Your task to perform on an android device: Search for "macbook pro" on target, select the first entry, and add it to the cart. Image 0: 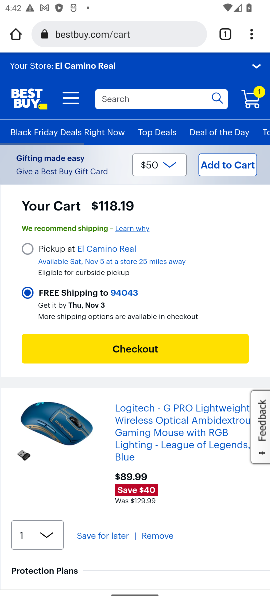
Step 0: click (141, 27)
Your task to perform on an android device: Search for "macbook pro" on target, select the first entry, and add it to the cart. Image 1: 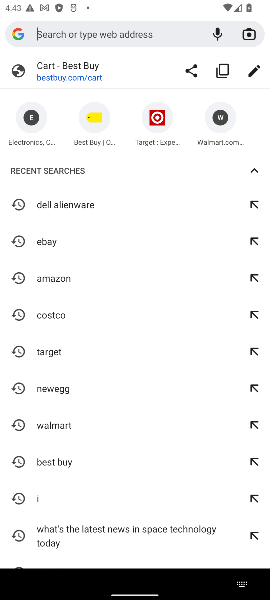
Step 1: type "target"
Your task to perform on an android device: Search for "macbook pro" on target, select the first entry, and add it to the cart. Image 2: 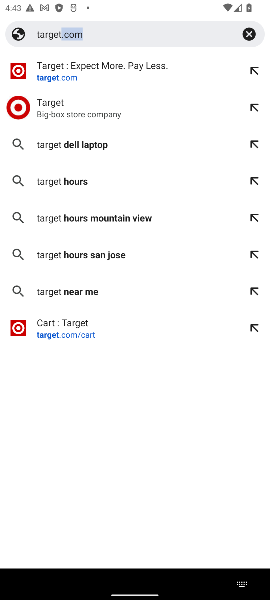
Step 2: click (85, 86)
Your task to perform on an android device: Search for "macbook pro" on target, select the first entry, and add it to the cart. Image 3: 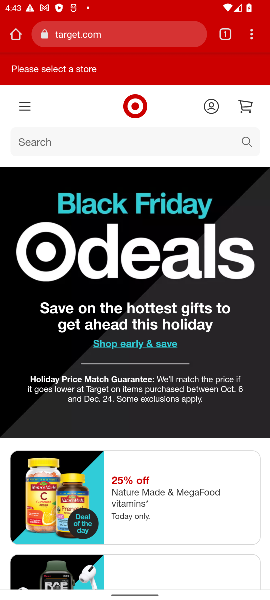
Step 3: click (115, 141)
Your task to perform on an android device: Search for "macbook pro" on target, select the first entry, and add it to the cart. Image 4: 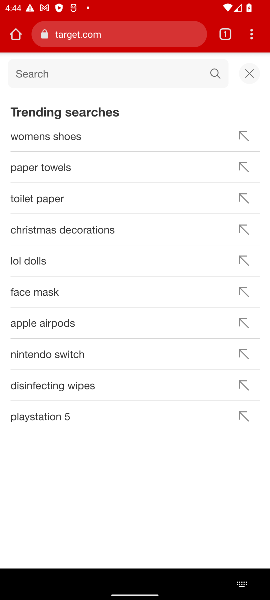
Step 4: type "macbook pro"
Your task to perform on an android device: Search for "macbook pro" on target, select the first entry, and add it to the cart. Image 5: 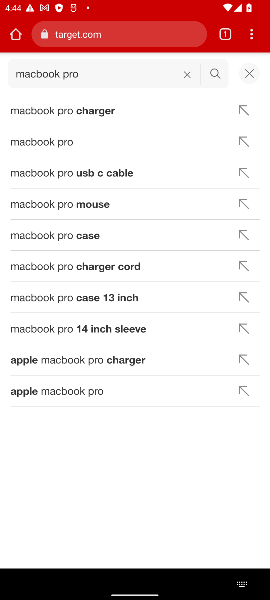
Step 5: type "\\"
Your task to perform on an android device: Search for "macbook pro" on target, select the first entry, and add it to the cart. Image 6: 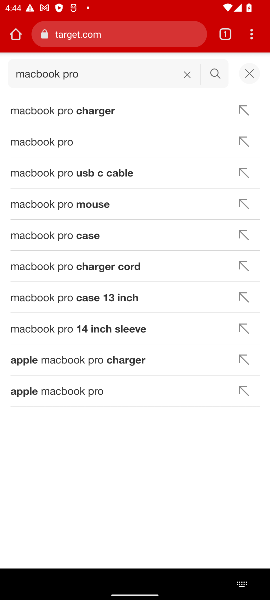
Step 6: press enter
Your task to perform on an android device: Search for "macbook pro" on target, select the first entry, and add it to the cart. Image 7: 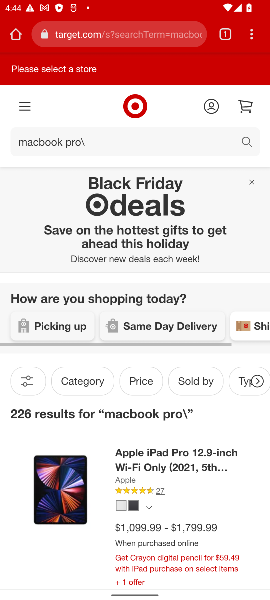
Step 7: drag from (116, 516) to (118, 360)
Your task to perform on an android device: Search for "macbook pro" on target, select the first entry, and add it to the cart. Image 8: 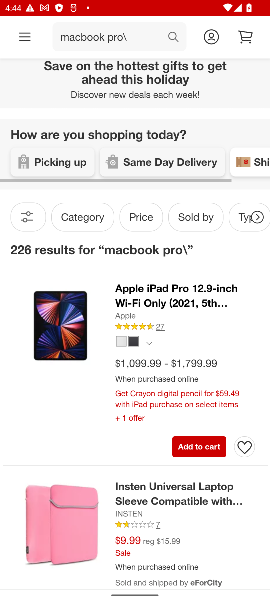
Step 8: click (42, 372)
Your task to perform on an android device: Search for "macbook pro" on target, select the first entry, and add it to the cart. Image 9: 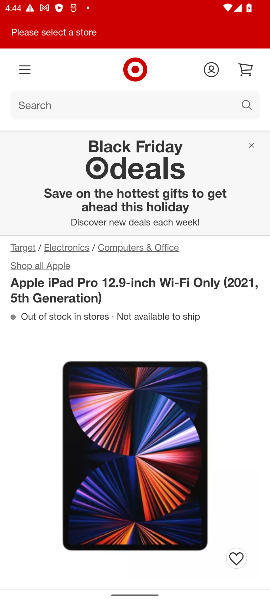
Step 9: drag from (253, 486) to (178, 0)
Your task to perform on an android device: Search for "macbook pro" on target, select the first entry, and add it to the cart. Image 10: 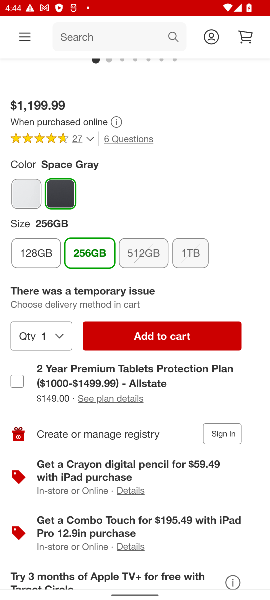
Step 10: click (152, 333)
Your task to perform on an android device: Search for "macbook pro" on target, select the first entry, and add it to the cart. Image 11: 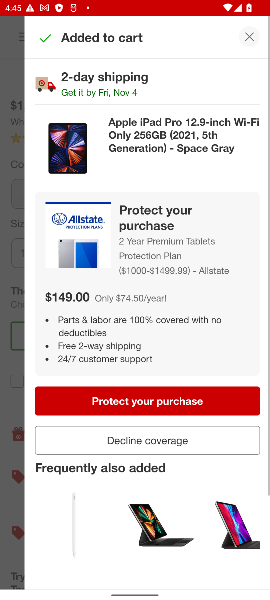
Step 11: task complete